Your task to perform on an android device: Open eBay Image 0: 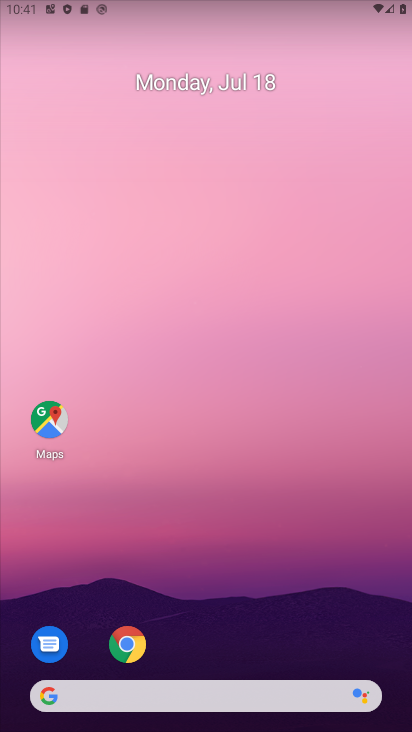
Step 0: drag from (227, 607) to (252, 34)
Your task to perform on an android device: Open eBay Image 1: 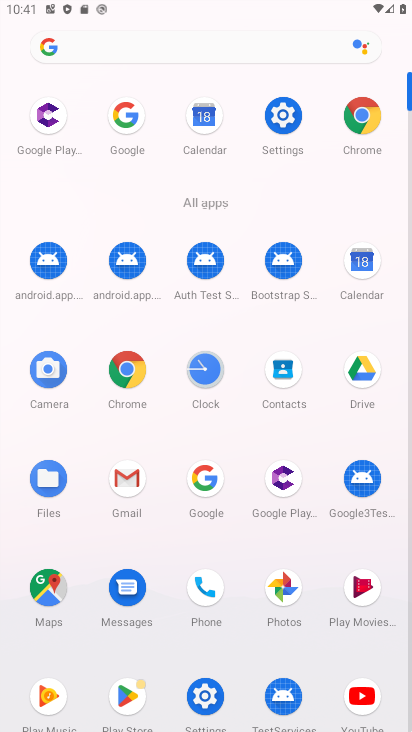
Step 1: click (128, 117)
Your task to perform on an android device: Open eBay Image 2: 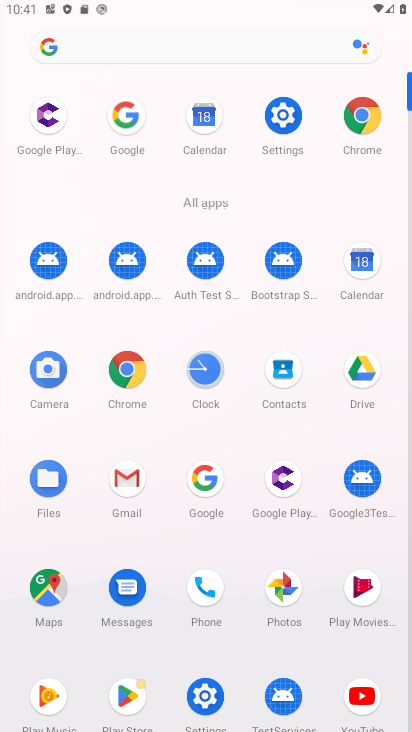
Step 2: click (124, 114)
Your task to perform on an android device: Open eBay Image 3: 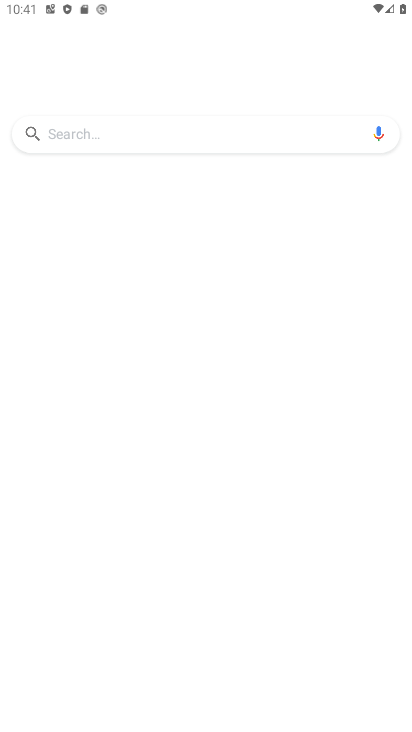
Step 3: click (146, 131)
Your task to perform on an android device: Open eBay Image 4: 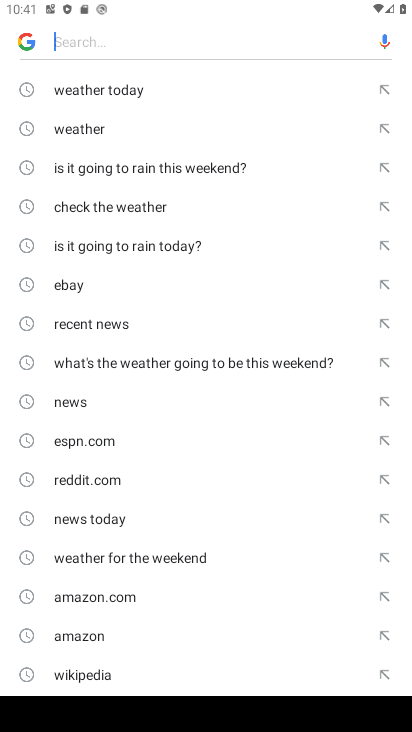
Step 4: type "ebay"
Your task to perform on an android device: Open eBay Image 5: 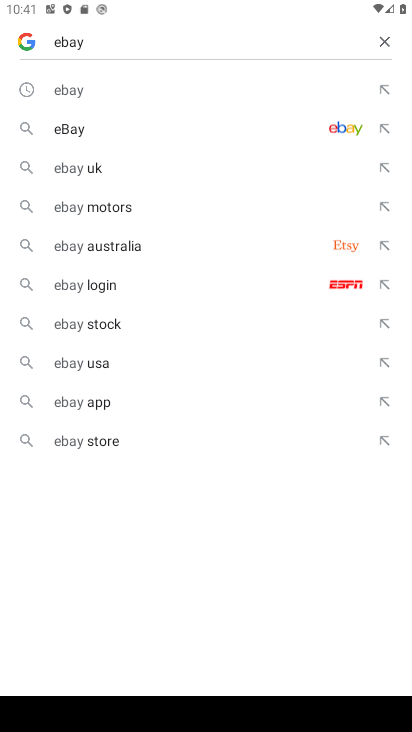
Step 5: click (120, 128)
Your task to perform on an android device: Open eBay Image 6: 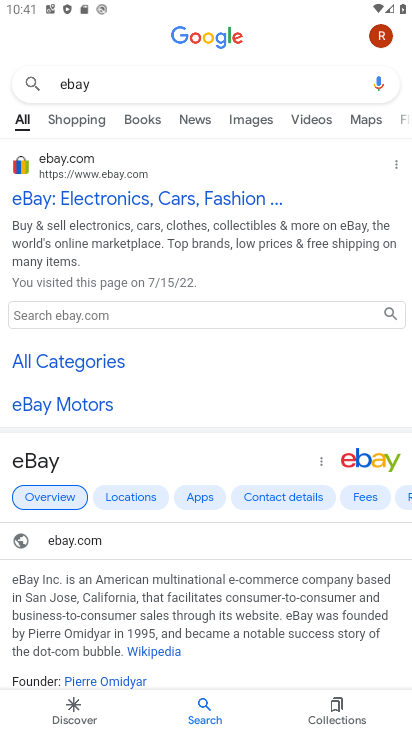
Step 6: click (73, 200)
Your task to perform on an android device: Open eBay Image 7: 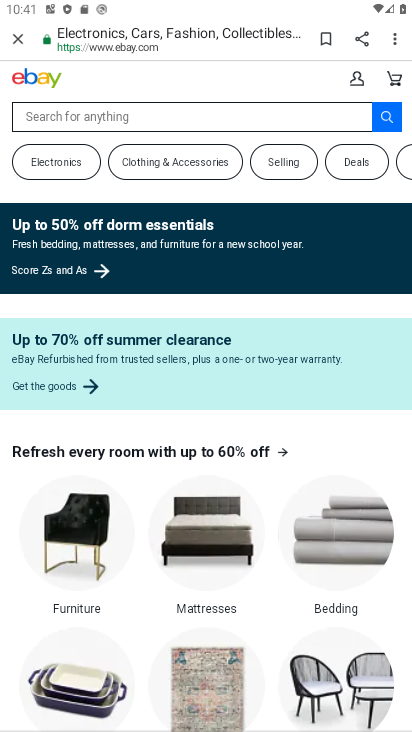
Step 7: task complete